Your task to perform on an android device: change timer sound Image 0: 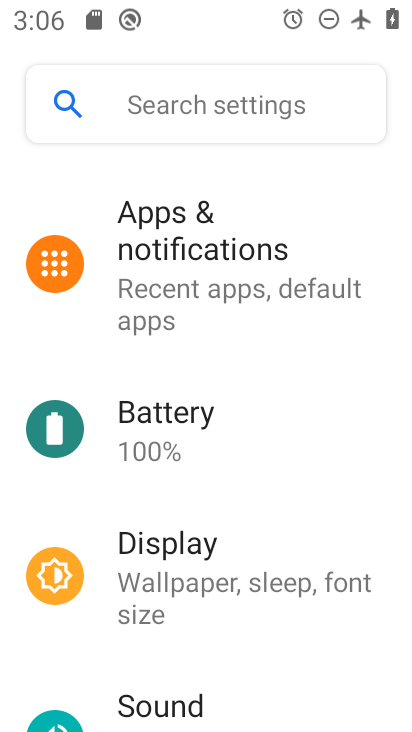
Step 0: press home button
Your task to perform on an android device: change timer sound Image 1: 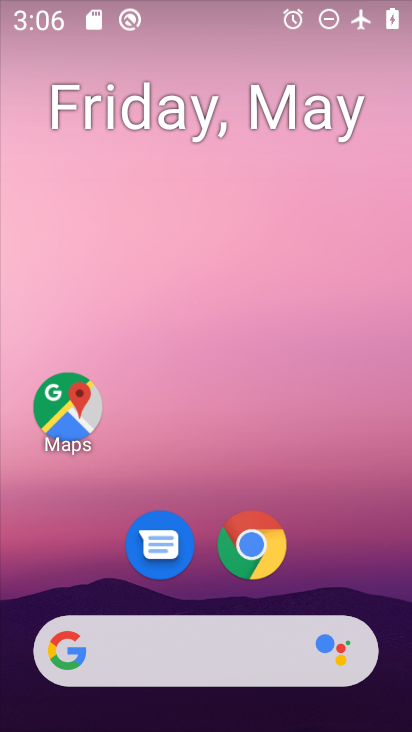
Step 1: drag from (368, 591) to (333, 241)
Your task to perform on an android device: change timer sound Image 2: 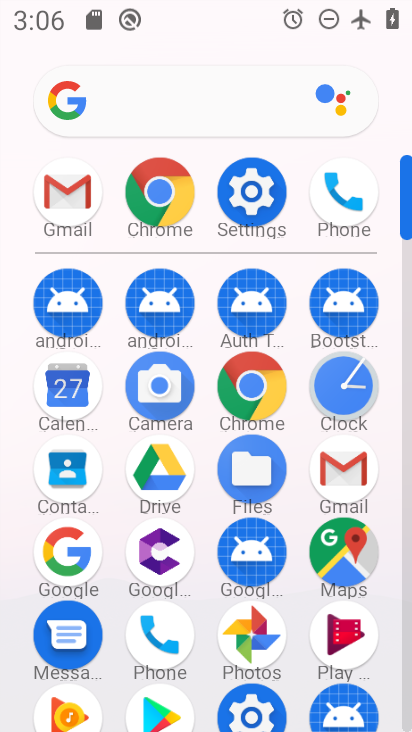
Step 2: click (357, 375)
Your task to perform on an android device: change timer sound Image 3: 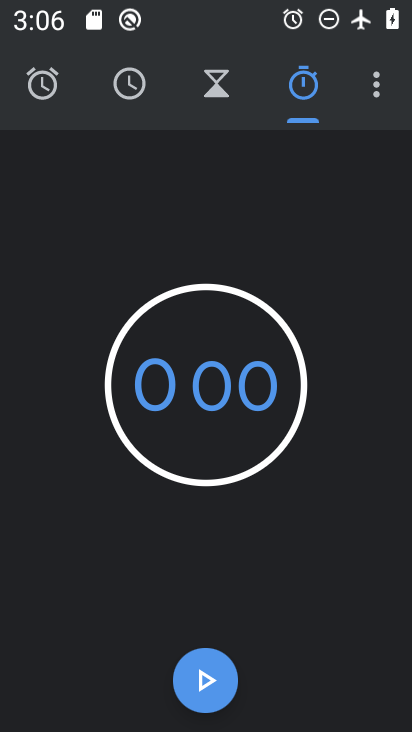
Step 3: click (345, 76)
Your task to perform on an android device: change timer sound Image 4: 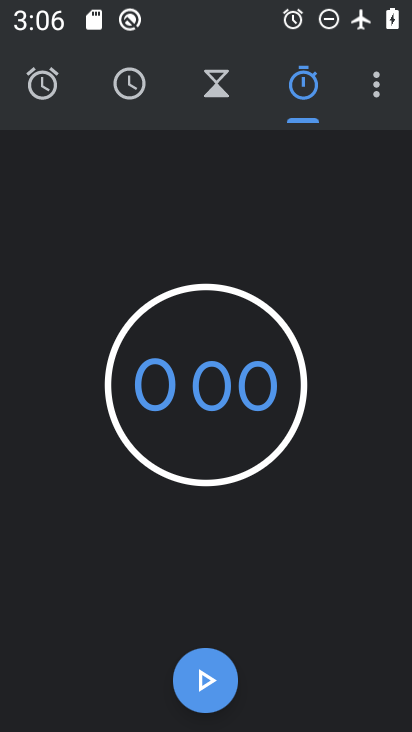
Step 4: click (378, 93)
Your task to perform on an android device: change timer sound Image 5: 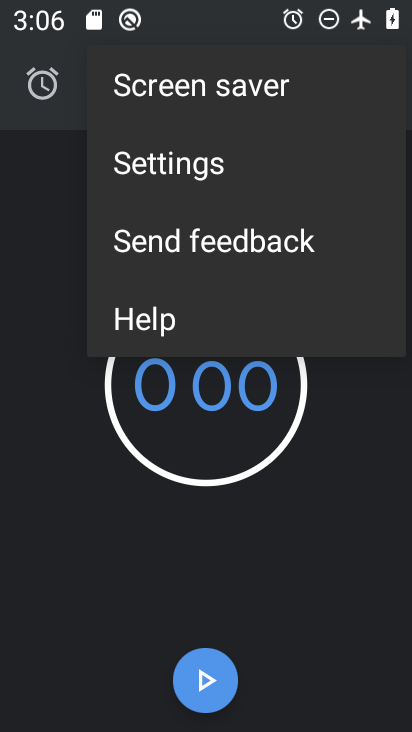
Step 5: click (189, 162)
Your task to perform on an android device: change timer sound Image 6: 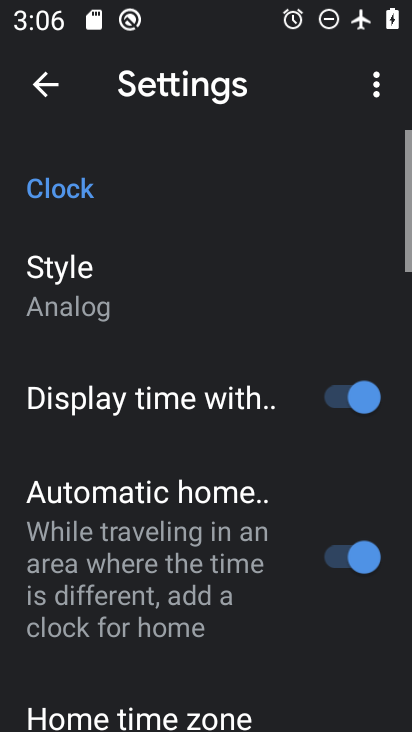
Step 6: drag from (244, 524) to (244, 172)
Your task to perform on an android device: change timer sound Image 7: 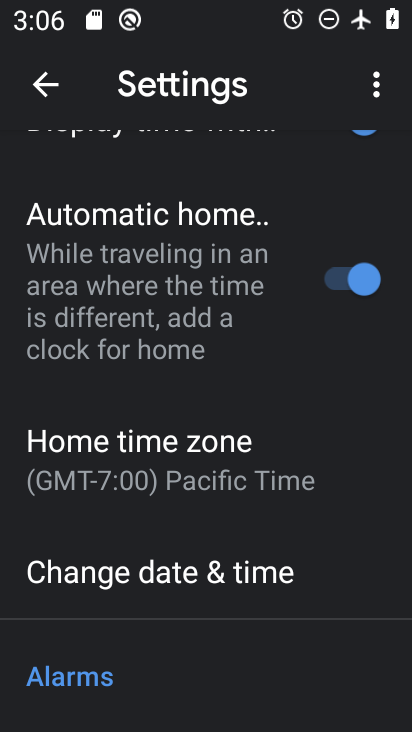
Step 7: drag from (238, 595) to (240, 231)
Your task to perform on an android device: change timer sound Image 8: 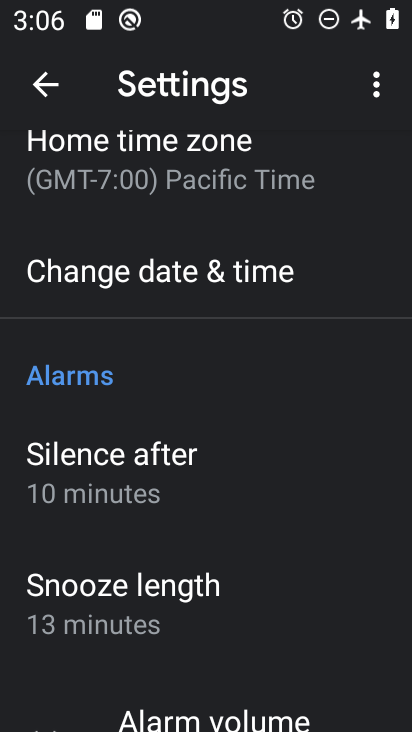
Step 8: drag from (185, 577) to (202, 253)
Your task to perform on an android device: change timer sound Image 9: 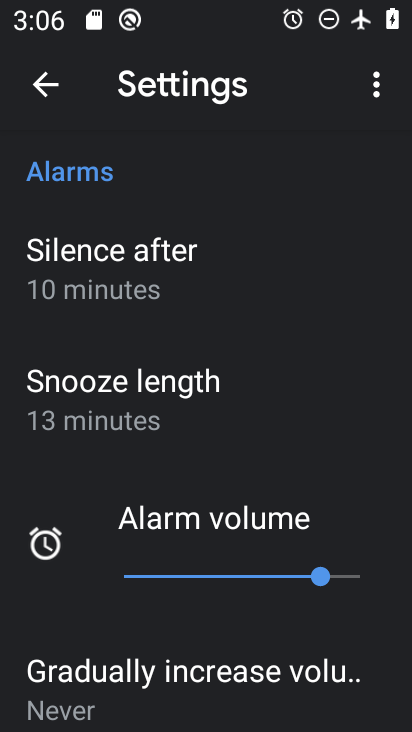
Step 9: drag from (179, 534) to (197, 221)
Your task to perform on an android device: change timer sound Image 10: 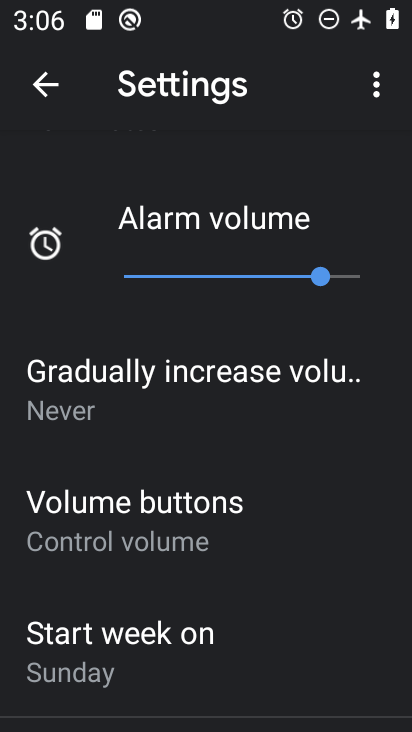
Step 10: drag from (130, 602) to (141, 260)
Your task to perform on an android device: change timer sound Image 11: 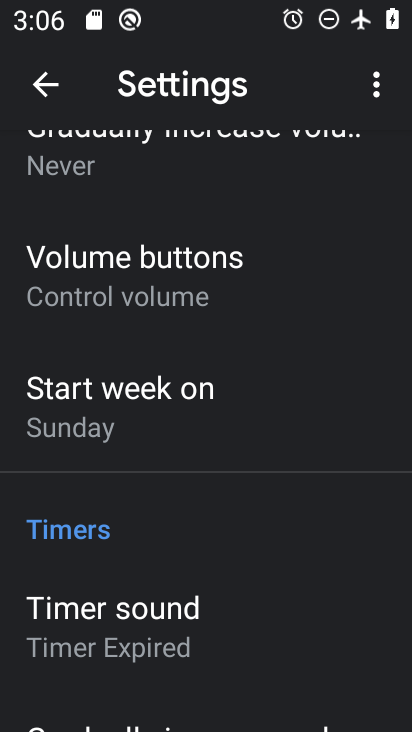
Step 11: click (121, 617)
Your task to perform on an android device: change timer sound Image 12: 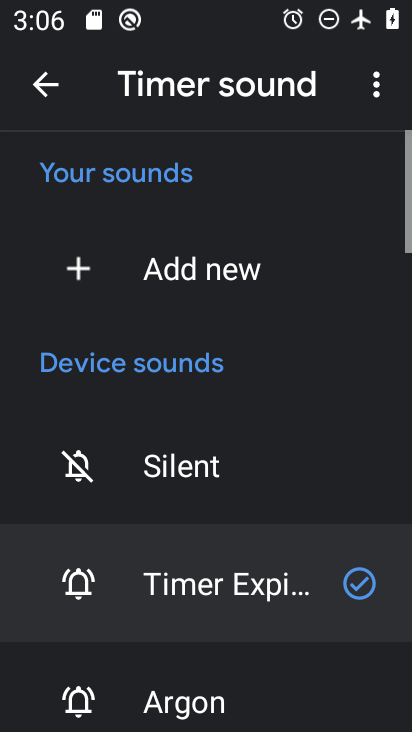
Step 12: drag from (169, 630) to (184, 279)
Your task to perform on an android device: change timer sound Image 13: 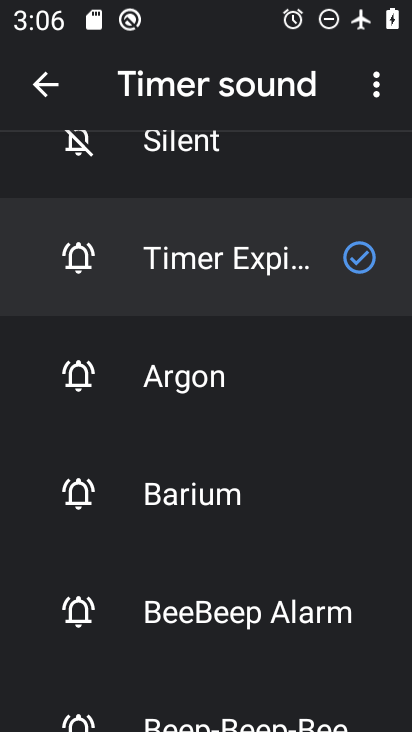
Step 13: click (147, 595)
Your task to perform on an android device: change timer sound Image 14: 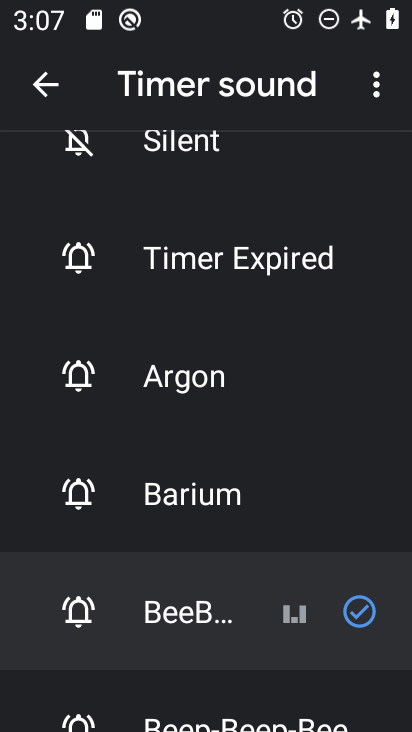
Step 14: task complete